Your task to perform on an android device: Show me recent news Image 0: 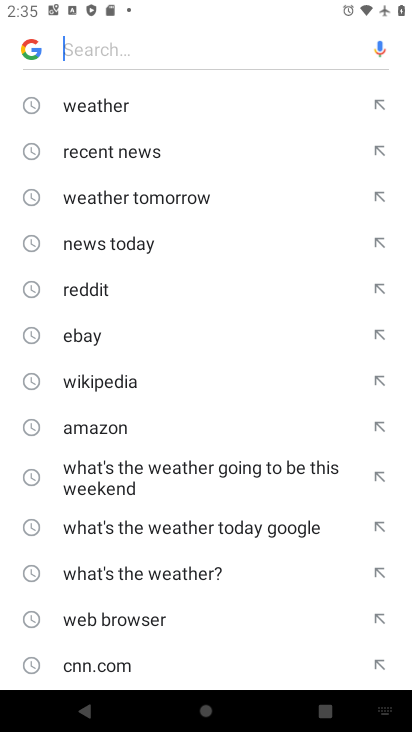
Step 0: press home button
Your task to perform on an android device: Show me recent news Image 1: 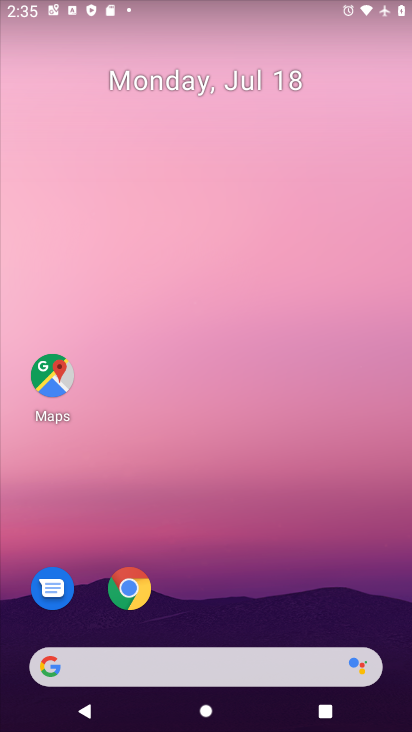
Step 1: drag from (217, 598) to (269, 186)
Your task to perform on an android device: Show me recent news Image 2: 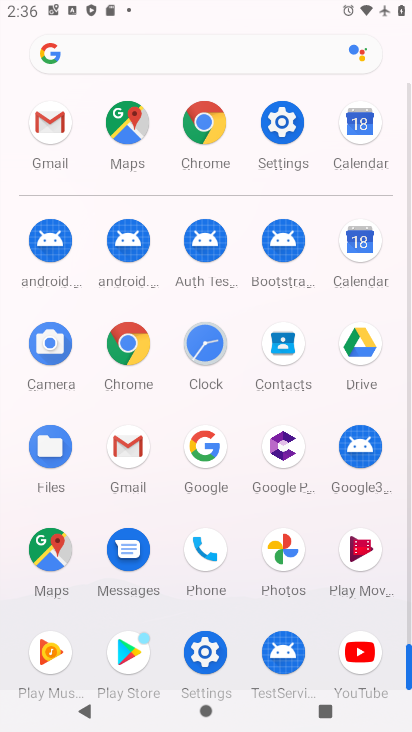
Step 2: click (204, 455)
Your task to perform on an android device: Show me recent news Image 3: 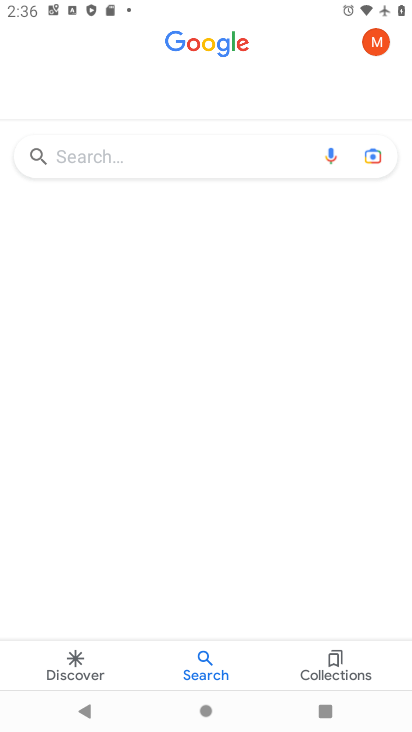
Step 3: click (180, 154)
Your task to perform on an android device: Show me recent news Image 4: 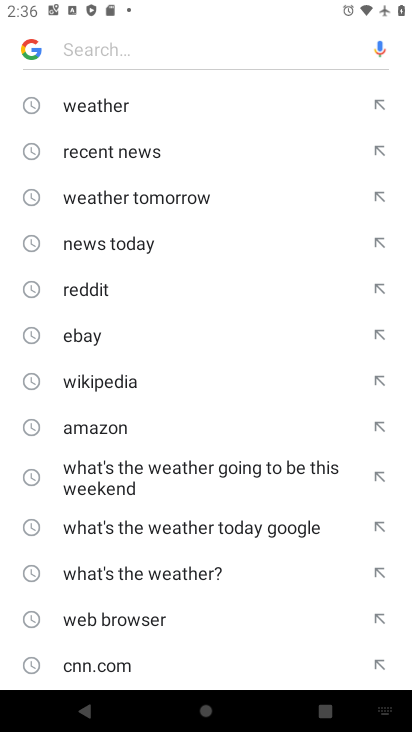
Step 4: click (179, 154)
Your task to perform on an android device: Show me recent news Image 5: 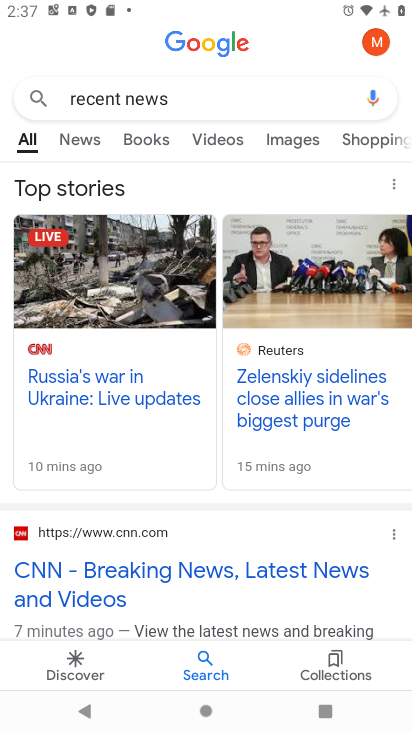
Step 5: click (88, 146)
Your task to perform on an android device: Show me recent news Image 6: 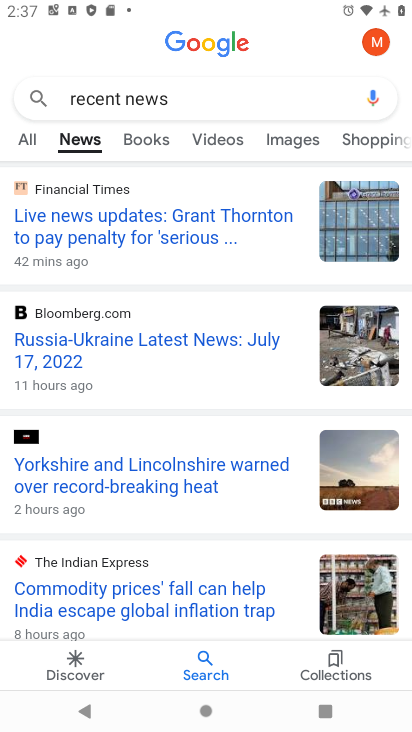
Step 6: task complete